Your task to perform on an android device: add a label to a message in the gmail app Image 0: 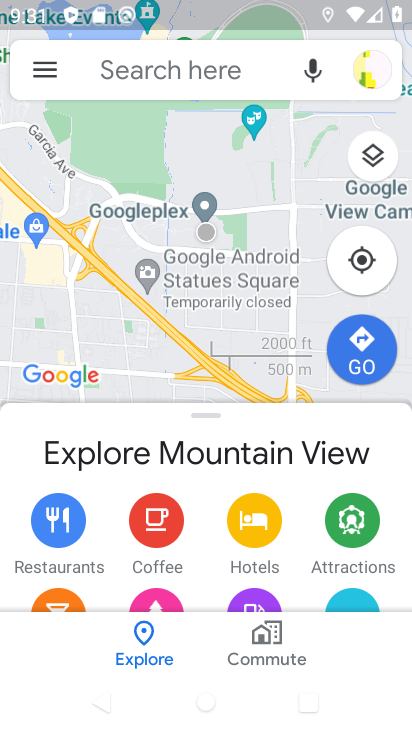
Step 0: press home button
Your task to perform on an android device: add a label to a message in the gmail app Image 1: 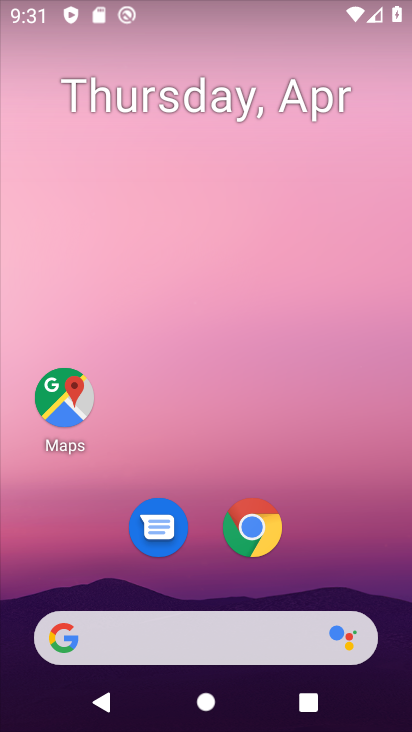
Step 1: drag from (302, 562) to (377, 118)
Your task to perform on an android device: add a label to a message in the gmail app Image 2: 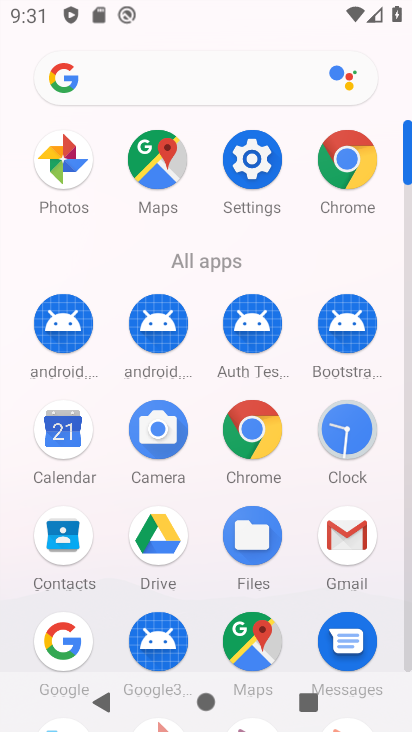
Step 2: drag from (283, 280) to (299, 10)
Your task to perform on an android device: add a label to a message in the gmail app Image 3: 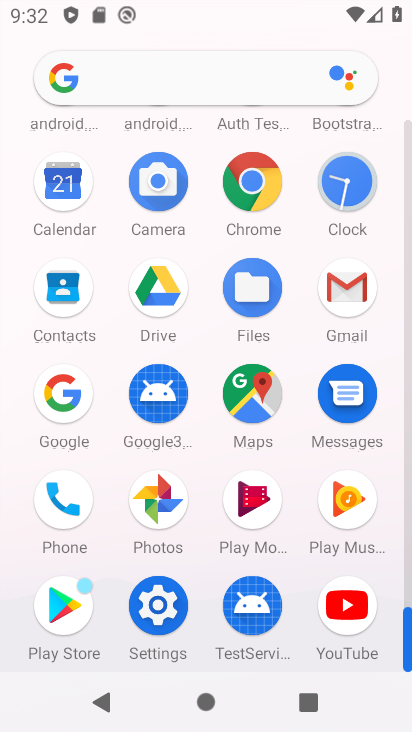
Step 3: click (347, 289)
Your task to perform on an android device: add a label to a message in the gmail app Image 4: 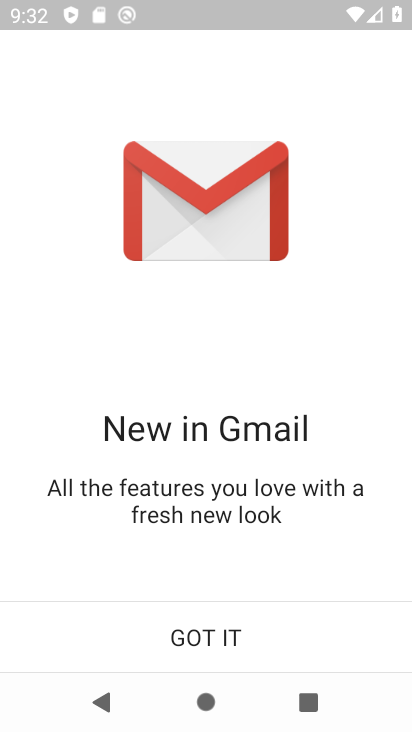
Step 4: click (228, 634)
Your task to perform on an android device: add a label to a message in the gmail app Image 5: 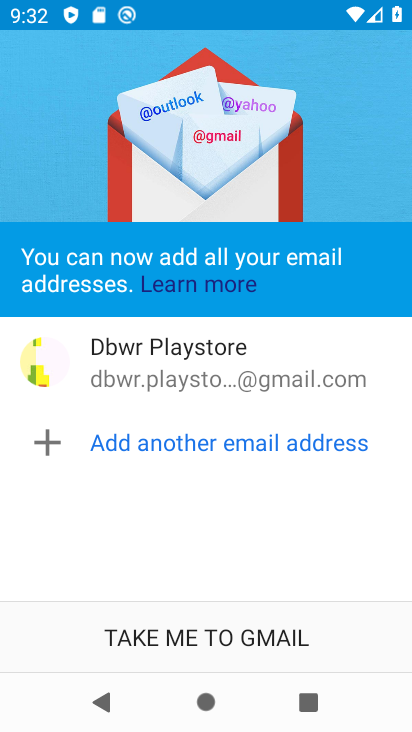
Step 5: click (298, 636)
Your task to perform on an android device: add a label to a message in the gmail app Image 6: 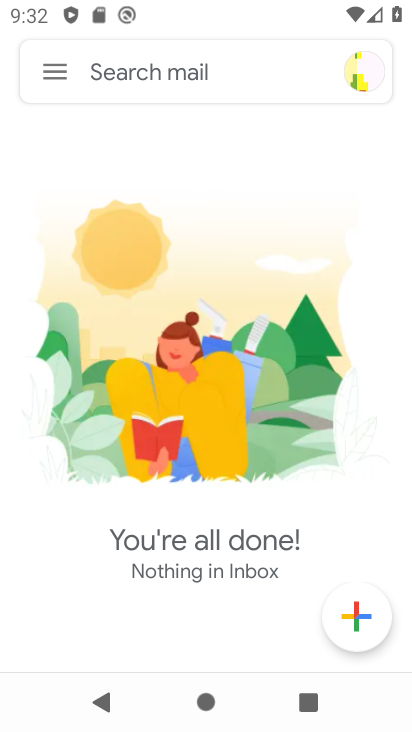
Step 6: task complete